Your task to perform on an android device: Search for sushi restaurants on Maps Image 0: 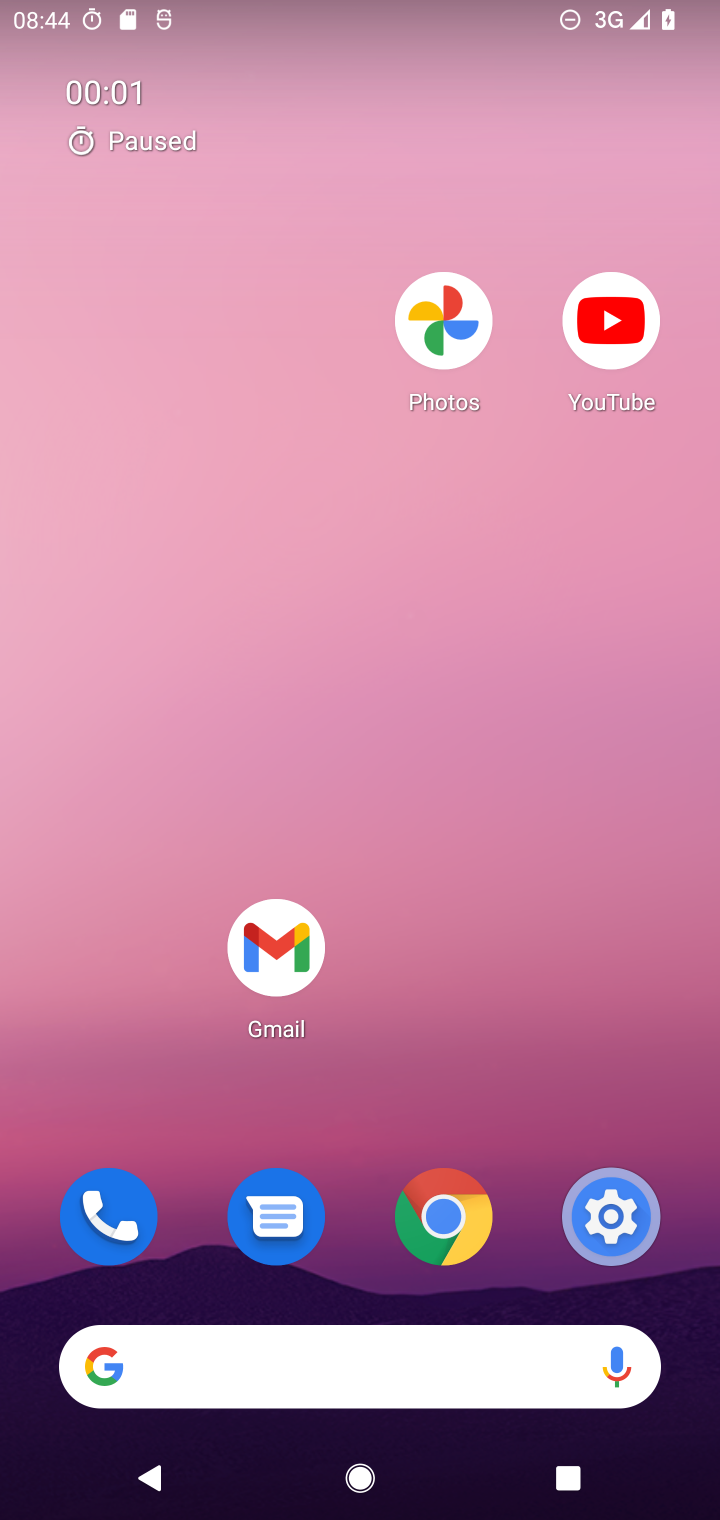
Step 0: drag from (541, 1068) to (430, 64)
Your task to perform on an android device: Search for sushi restaurants on Maps Image 1: 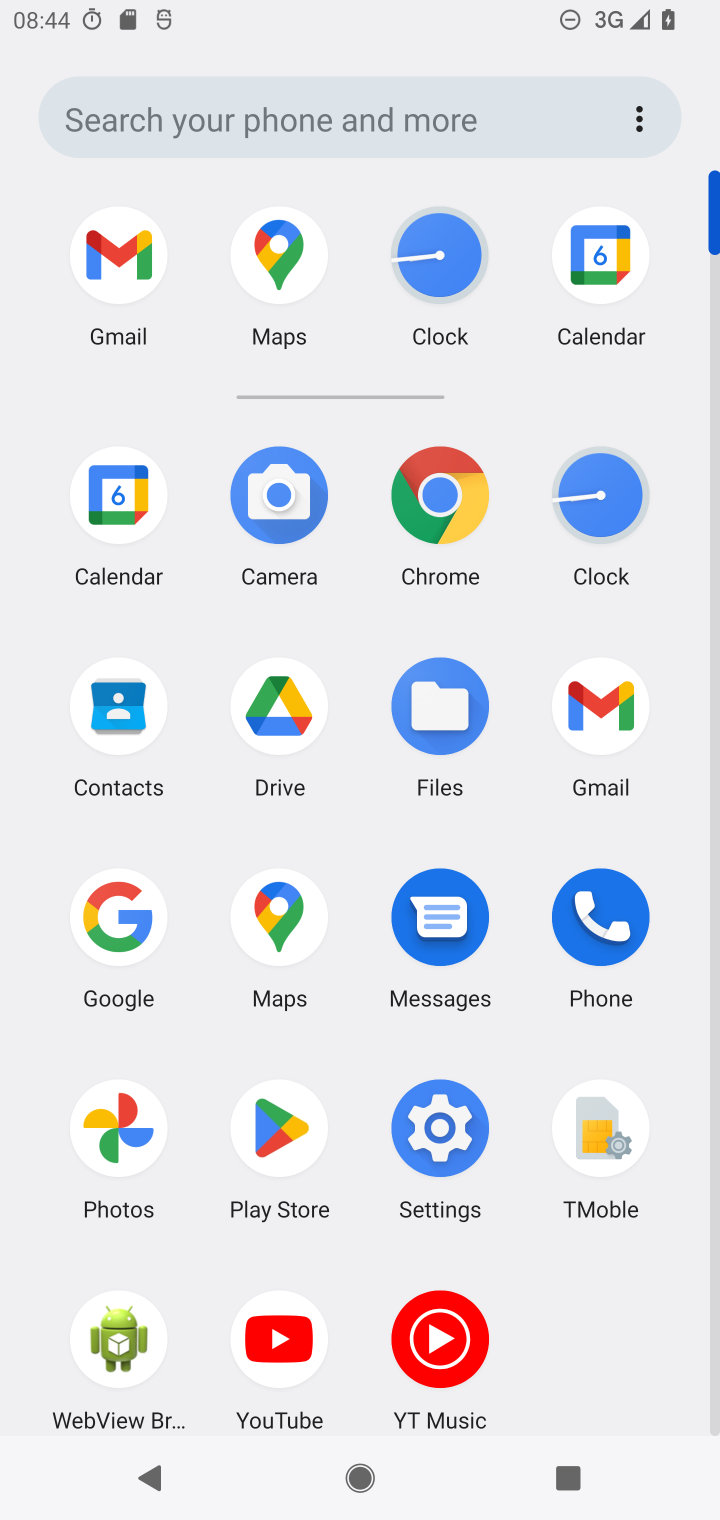
Step 1: click (279, 909)
Your task to perform on an android device: Search for sushi restaurants on Maps Image 2: 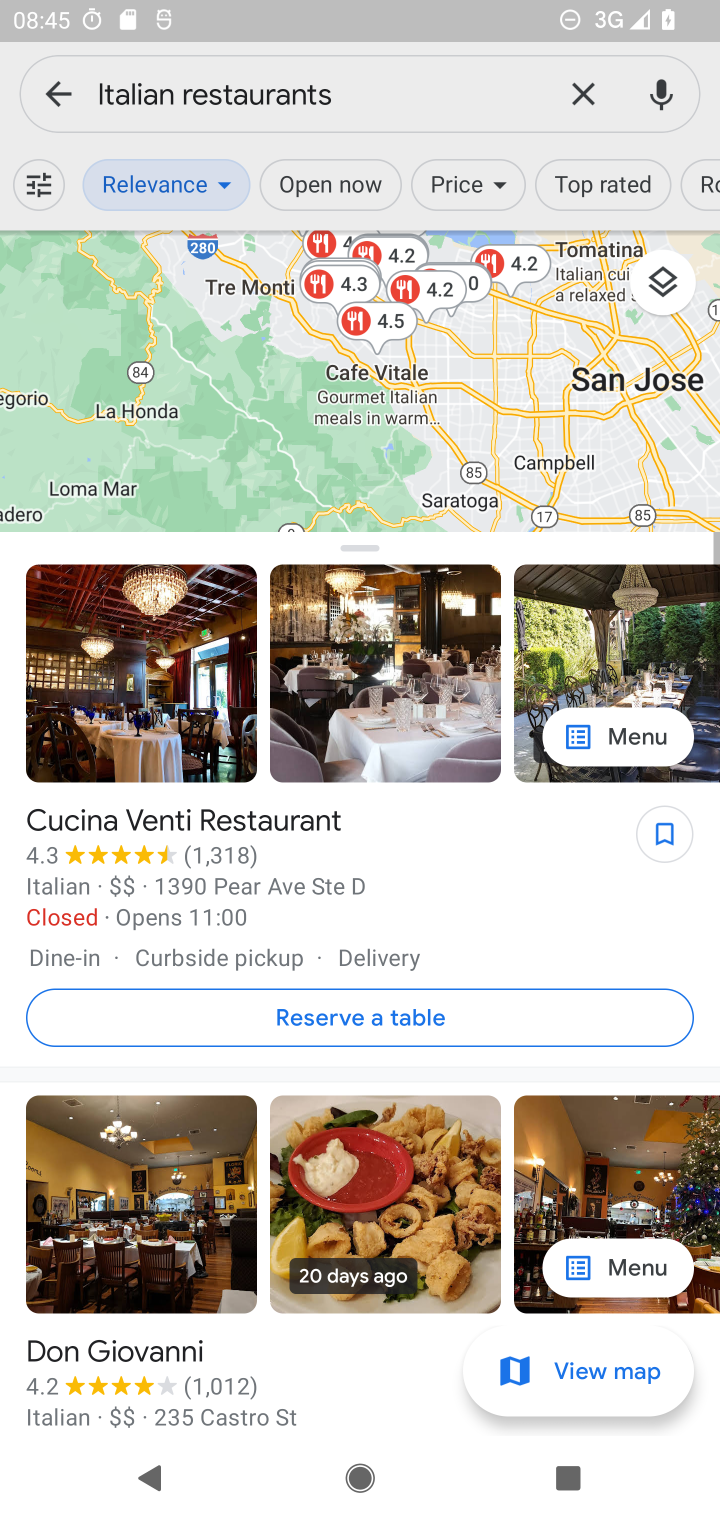
Step 2: click (590, 105)
Your task to perform on an android device: Search for sushi restaurants on Maps Image 3: 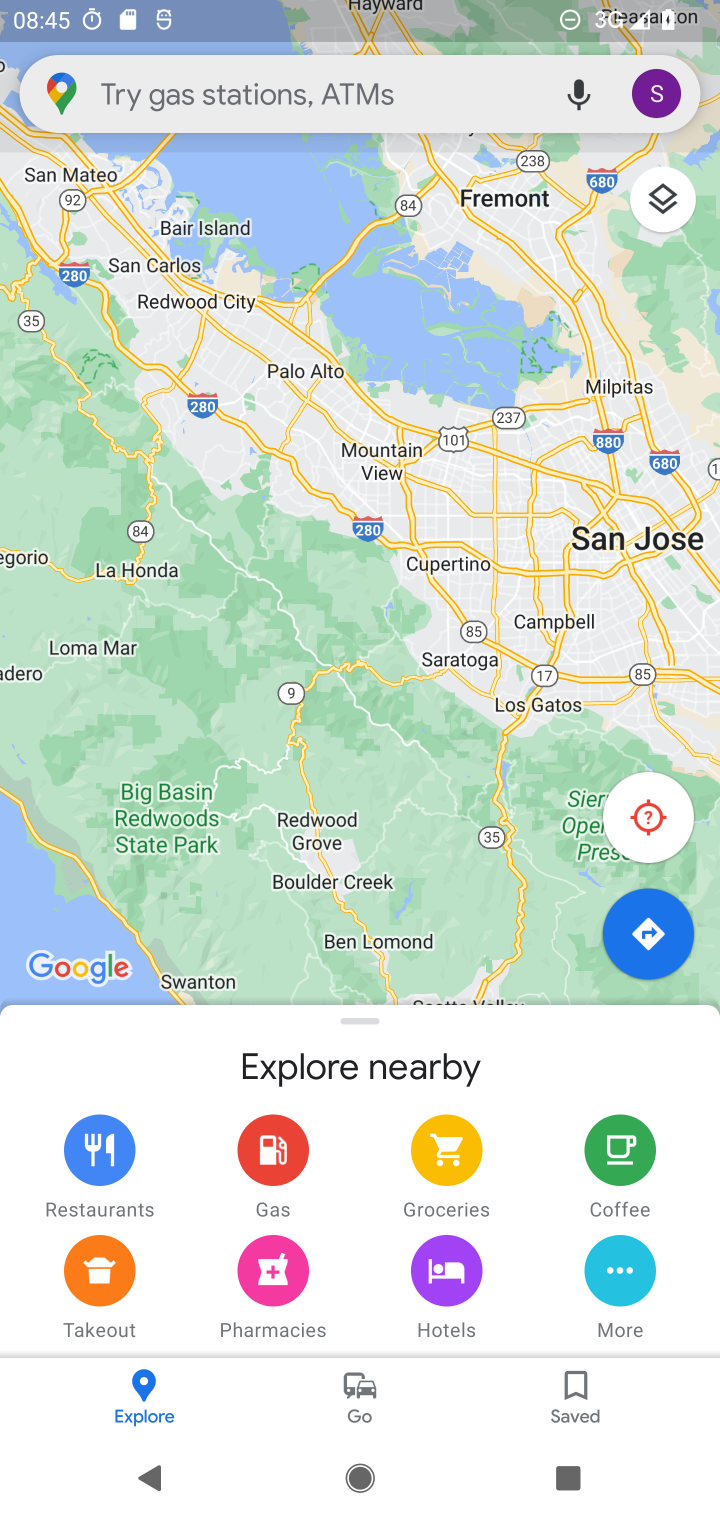
Step 3: click (385, 73)
Your task to perform on an android device: Search for sushi restaurants on Maps Image 4: 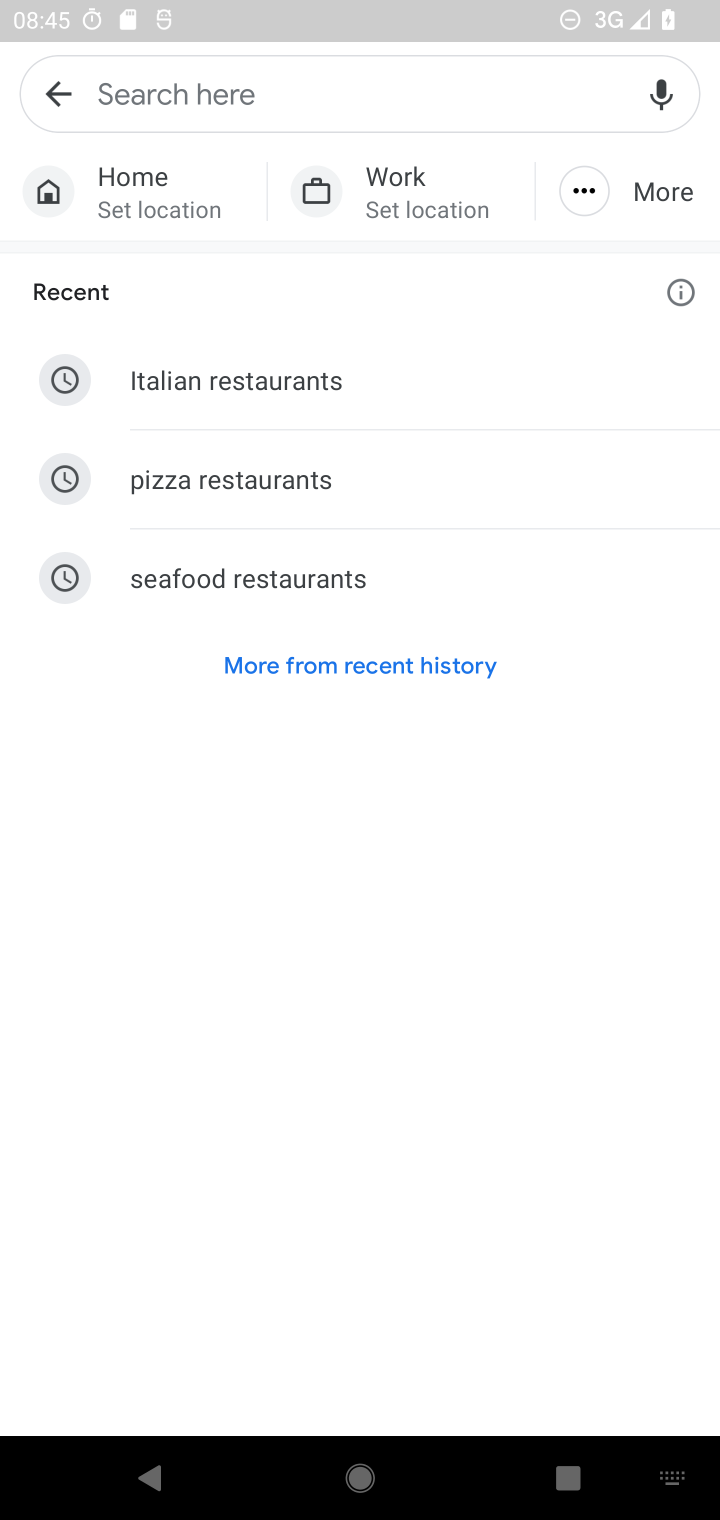
Step 4: type "sushi restaurants"
Your task to perform on an android device: Search for sushi restaurants on Maps Image 5: 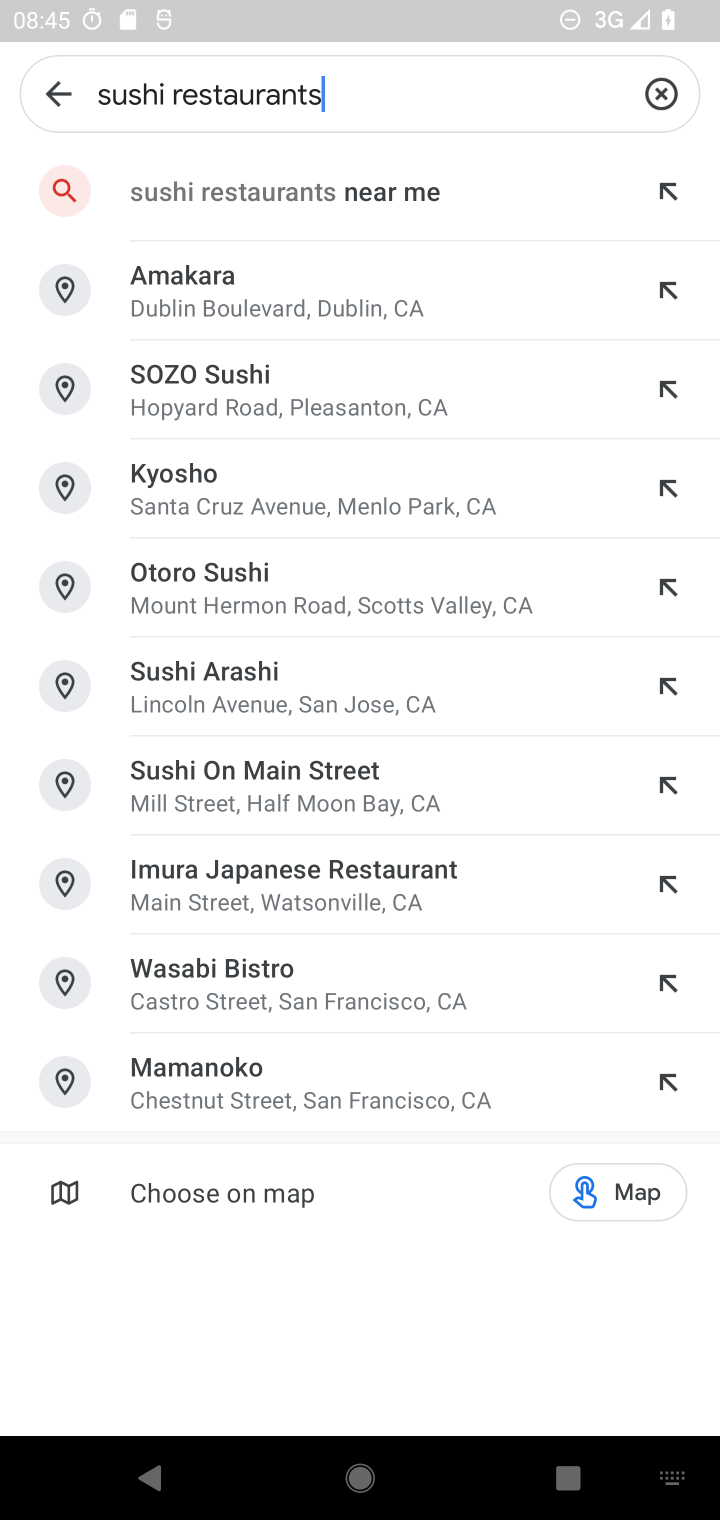
Step 5: press enter
Your task to perform on an android device: Search for sushi restaurants on Maps Image 6: 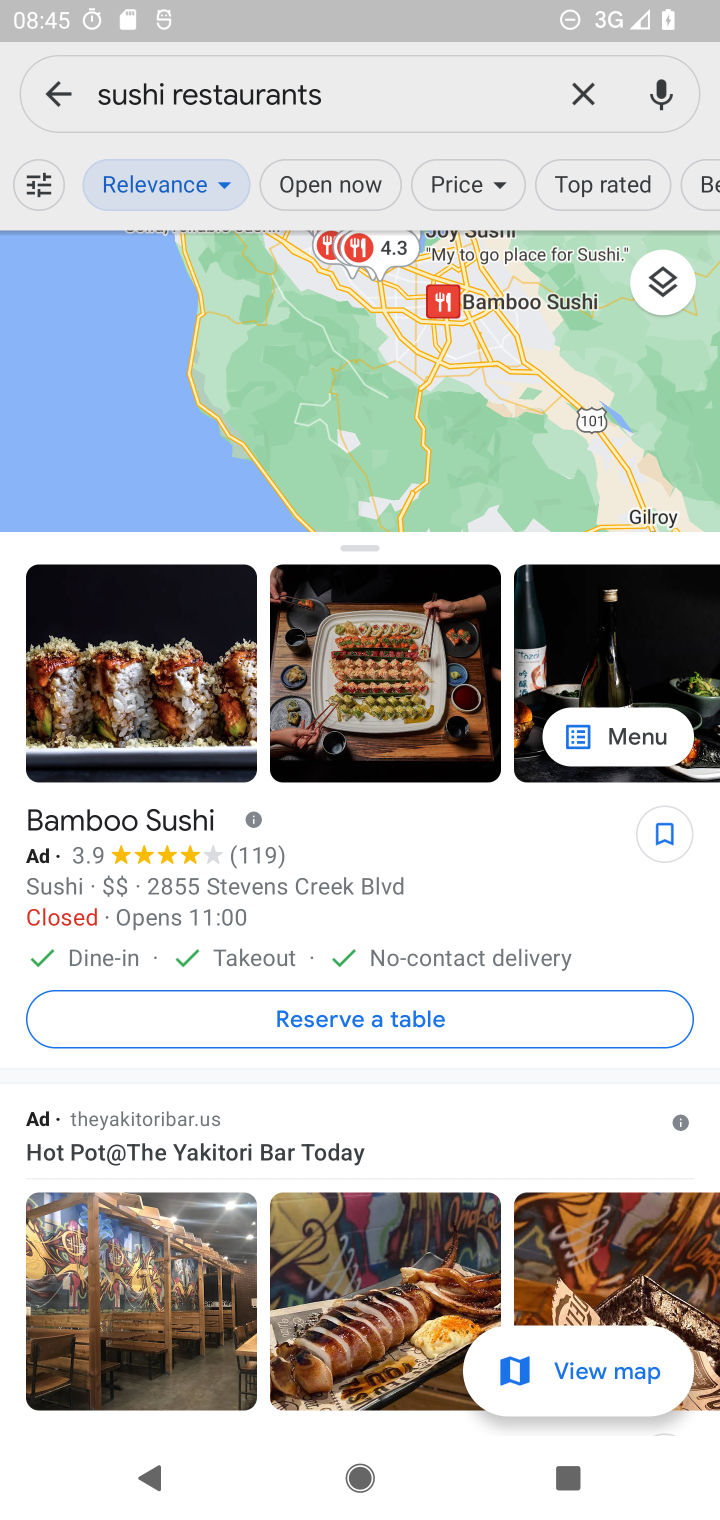
Step 6: task complete